Your task to perform on an android device: Go to Google maps Image 0: 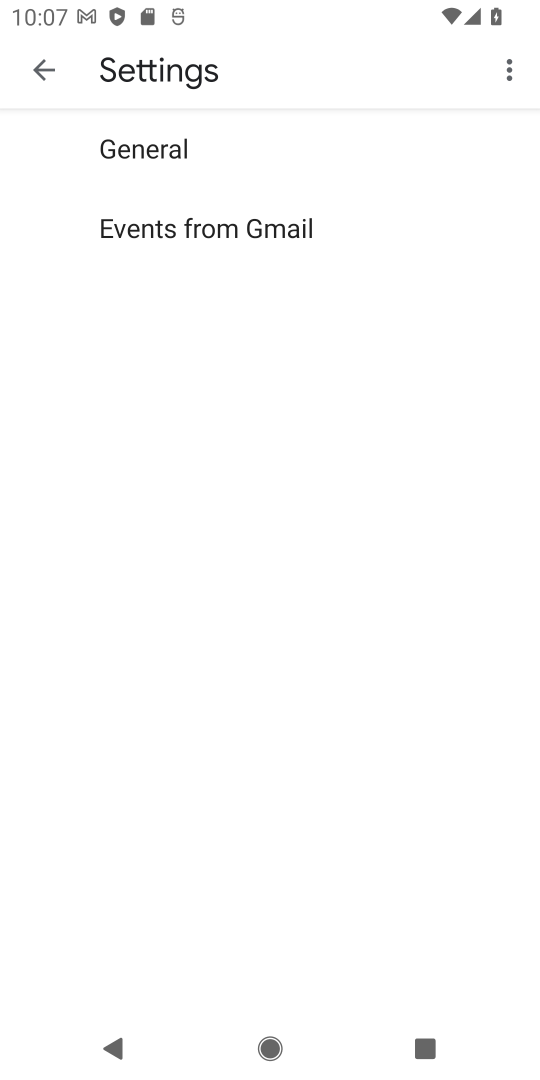
Step 0: press home button
Your task to perform on an android device: Go to Google maps Image 1: 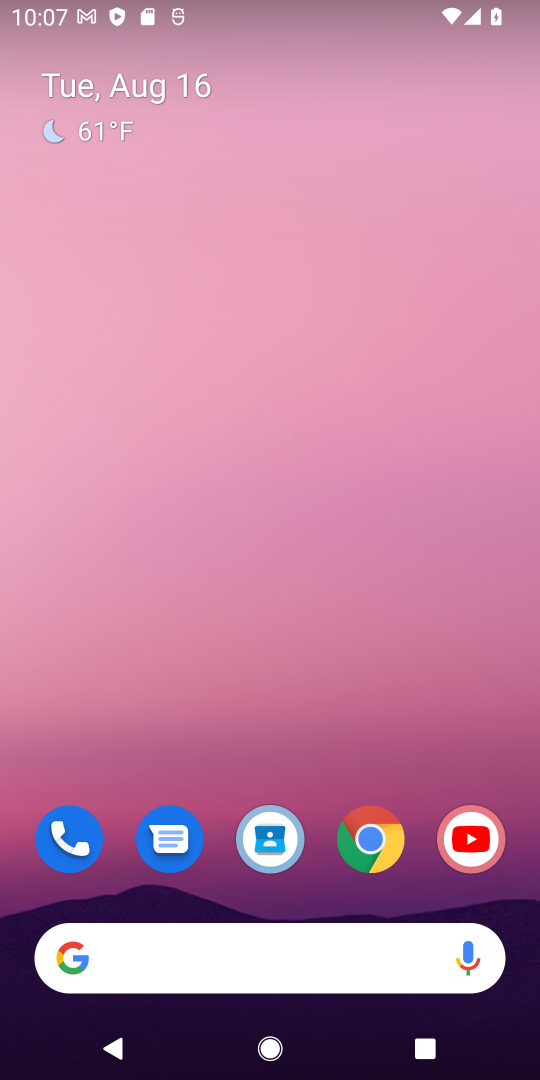
Step 1: drag from (295, 920) to (290, 194)
Your task to perform on an android device: Go to Google maps Image 2: 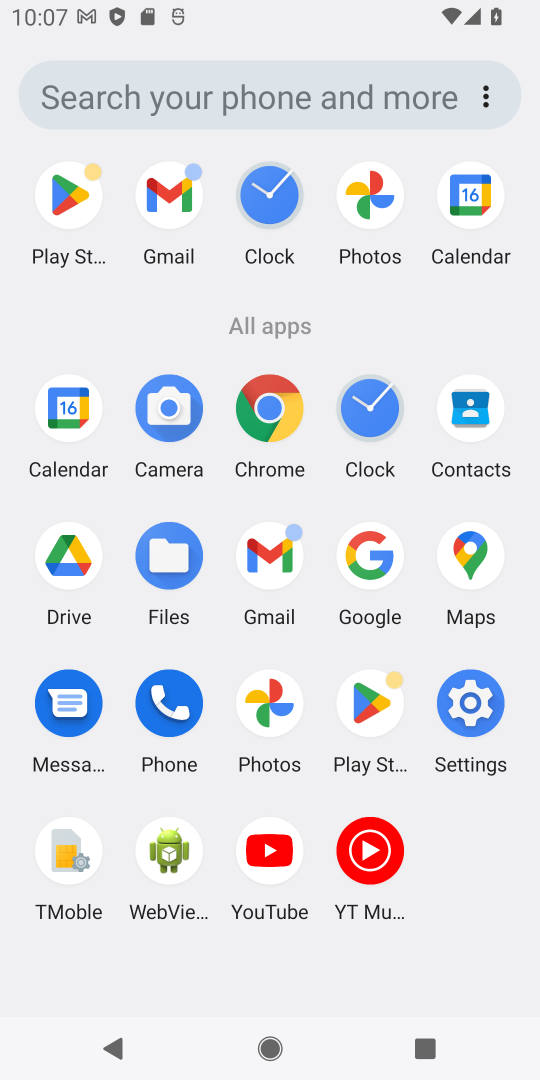
Step 2: click (474, 557)
Your task to perform on an android device: Go to Google maps Image 3: 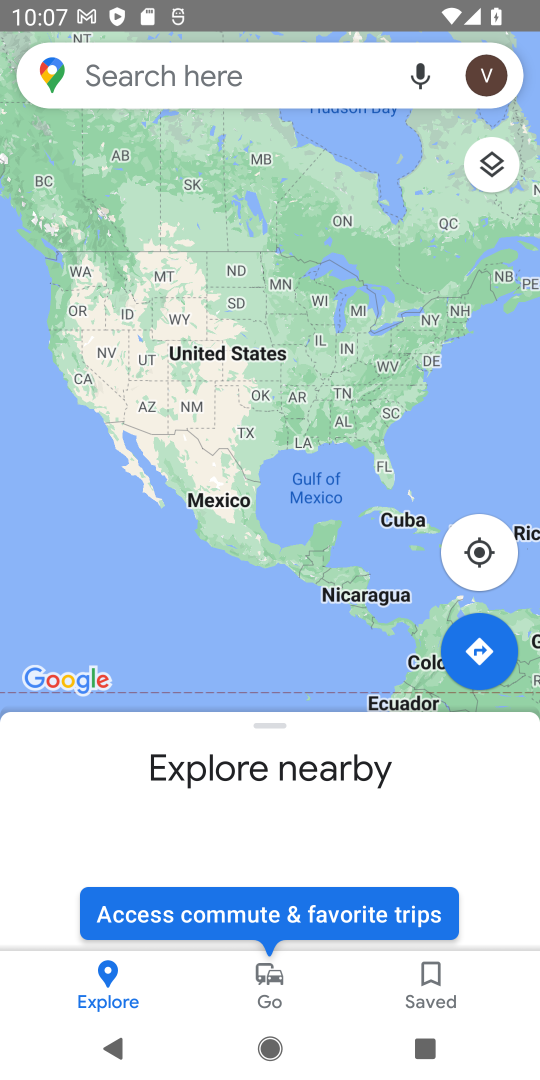
Step 3: task complete